Your task to perform on an android device: turn on data saver in the chrome app Image 0: 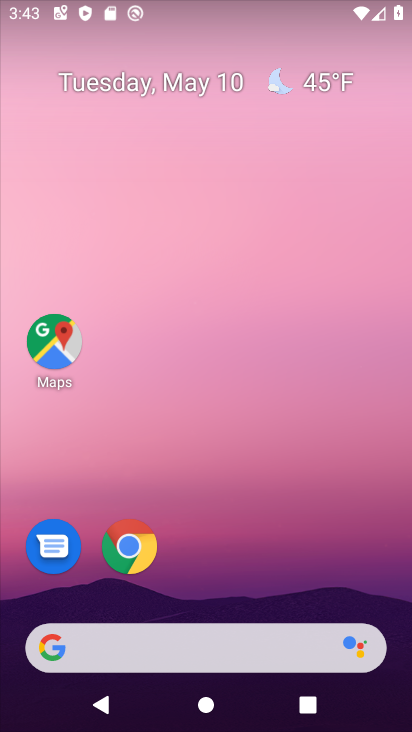
Step 0: click (130, 546)
Your task to perform on an android device: turn on data saver in the chrome app Image 1: 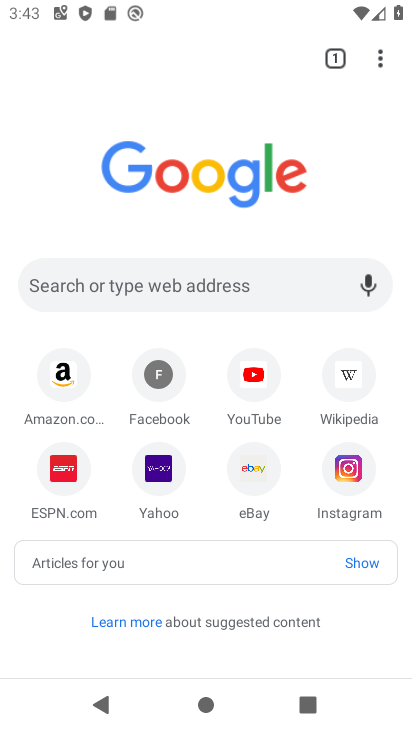
Step 1: drag from (375, 61) to (208, 490)
Your task to perform on an android device: turn on data saver in the chrome app Image 2: 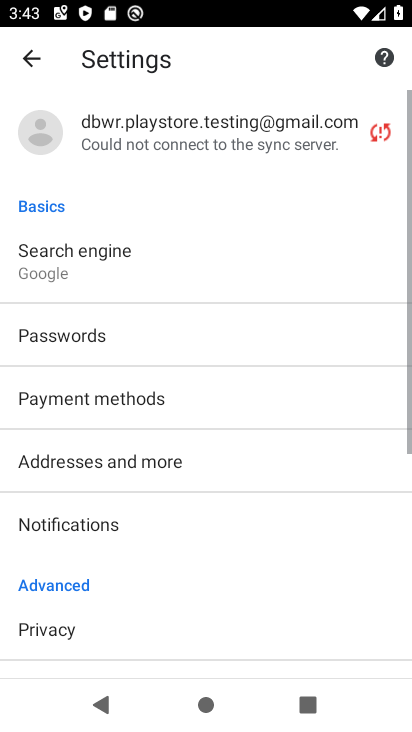
Step 2: drag from (170, 624) to (244, 159)
Your task to perform on an android device: turn on data saver in the chrome app Image 3: 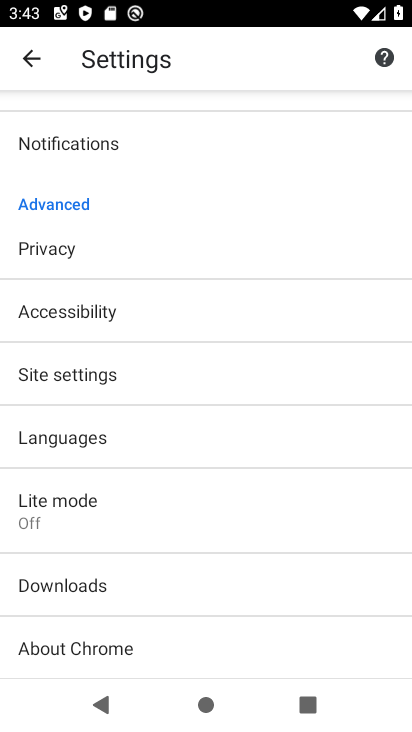
Step 3: click (73, 499)
Your task to perform on an android device: turn on data saver in the chrome app Image 4: 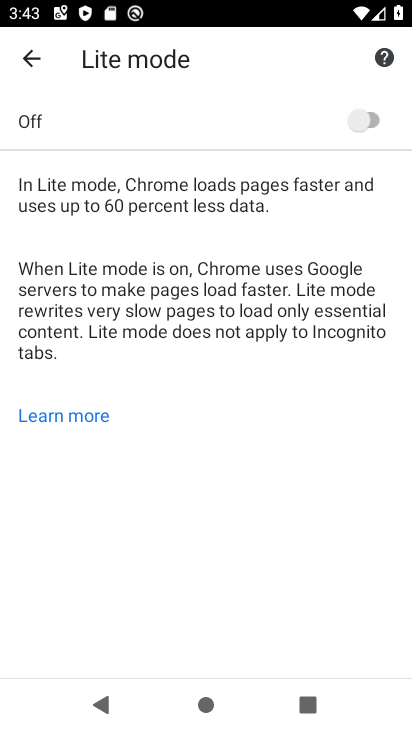
Step 4: click (351, 123)
Your task to perform on an android device: turn on data saver in the chrome app Image 5: 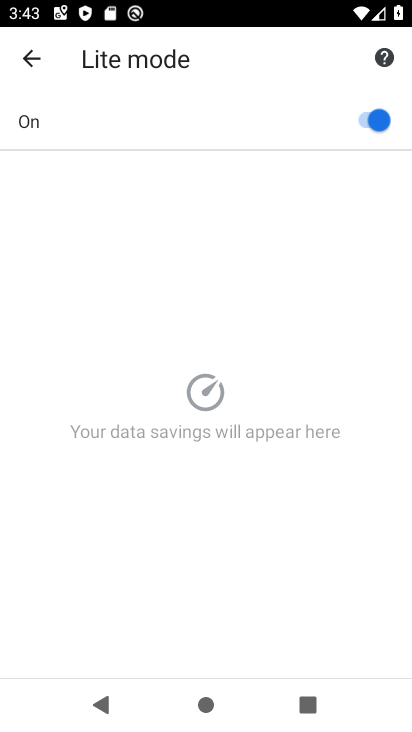
Step 5: task complete